Your task to perform on an android device: install app "PlayWell" Image 0: 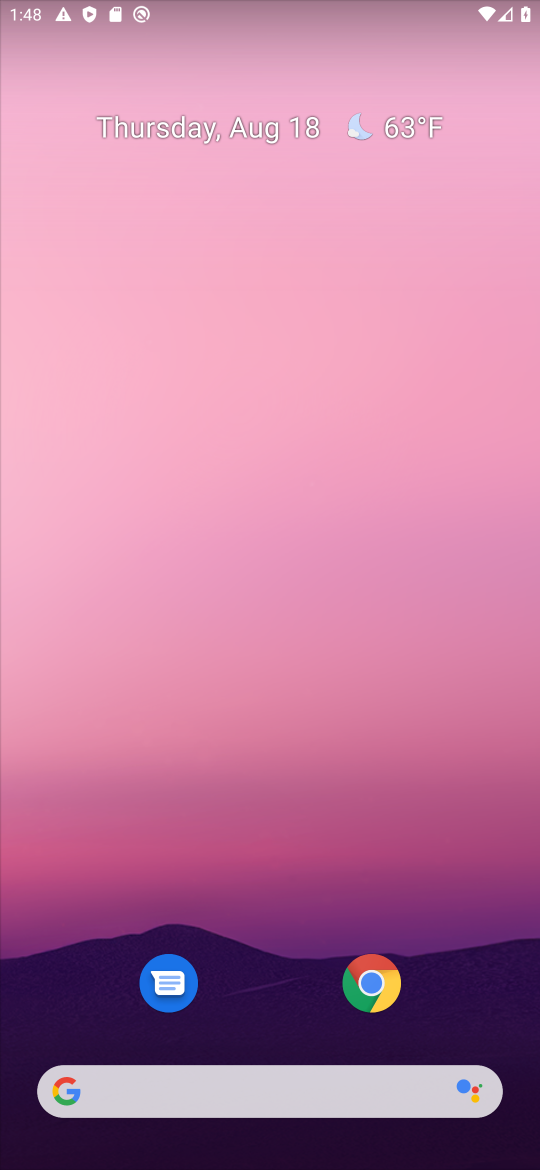
Step 0: drag from (427, 962) to (258, 354)
Your task to perform on an android device: install app "PlayWell" Image 1: 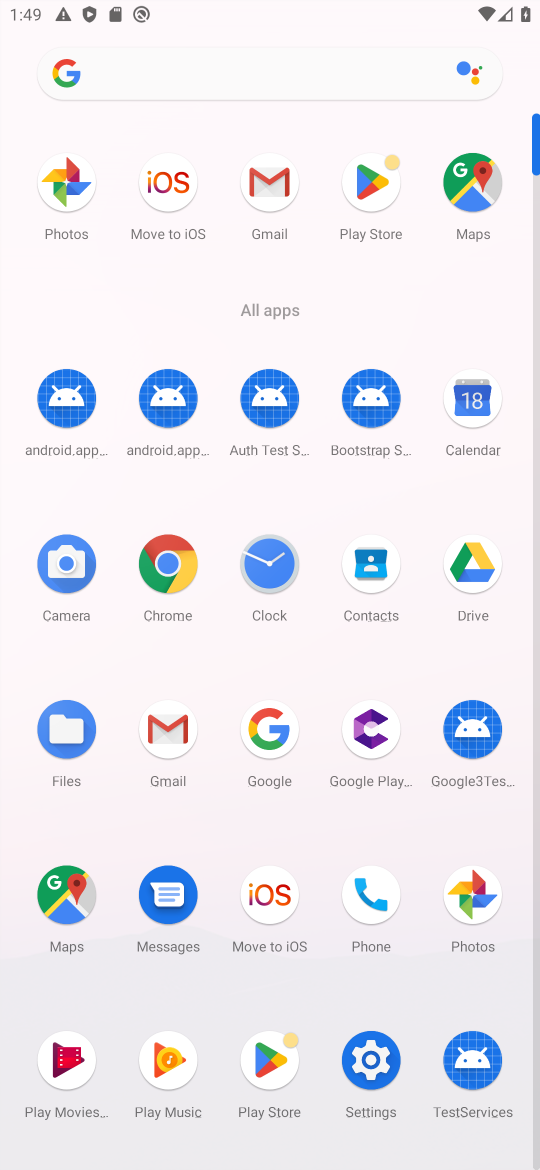
Step 1: click (267, 1069)
Your task to perform on an android device: install app "PlayWell" Image 2: 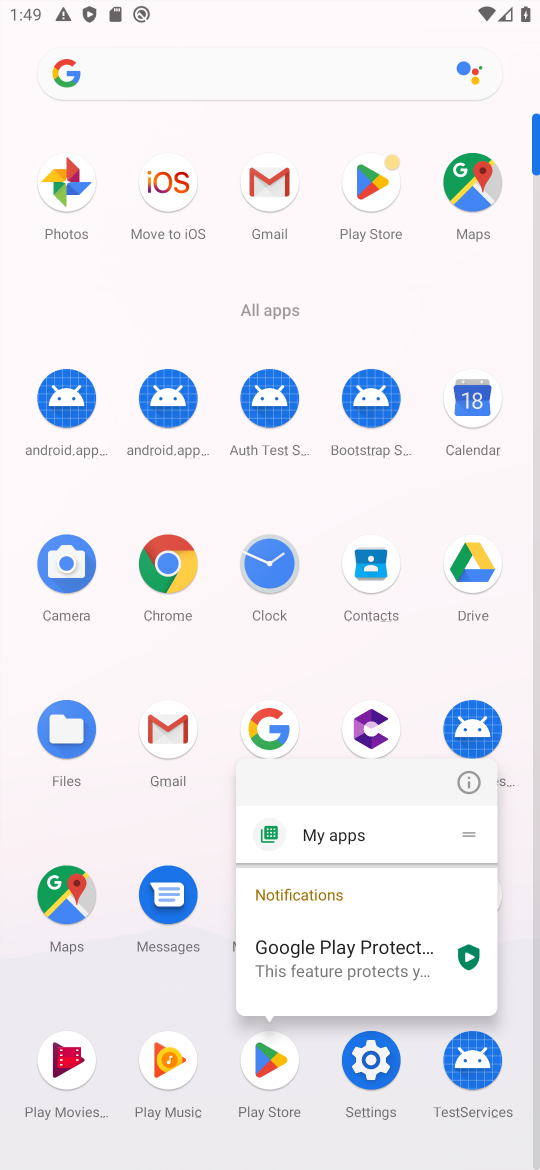
Step 2: click (272, 1071)
Your task to perform on an android device: install app "PlayWell" Image 3: 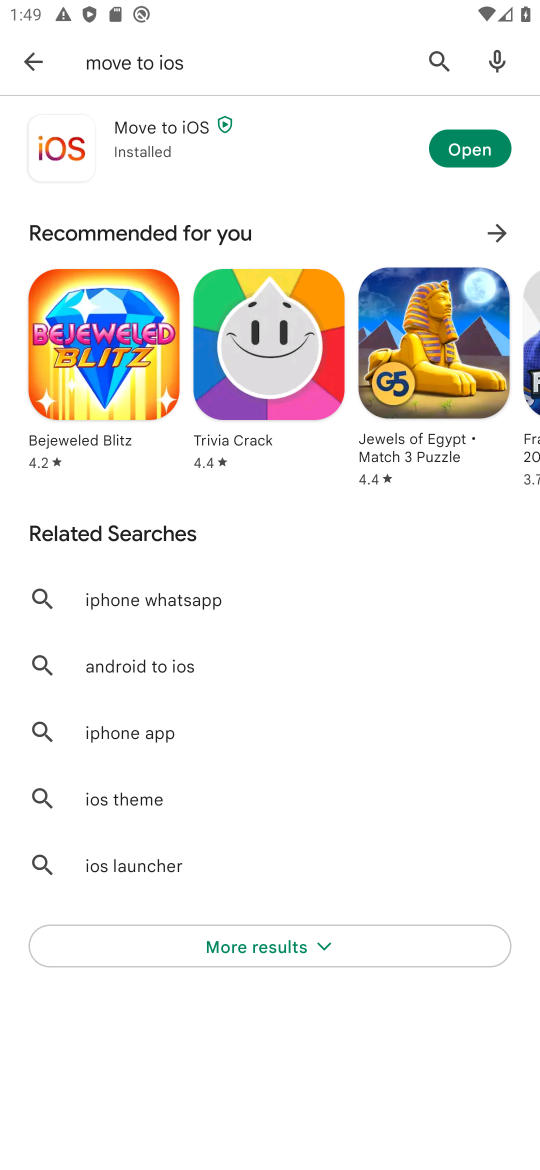
Step 3: click (439, 35)
Your task to perform on an android device: install app "PlayWell" Image 4: 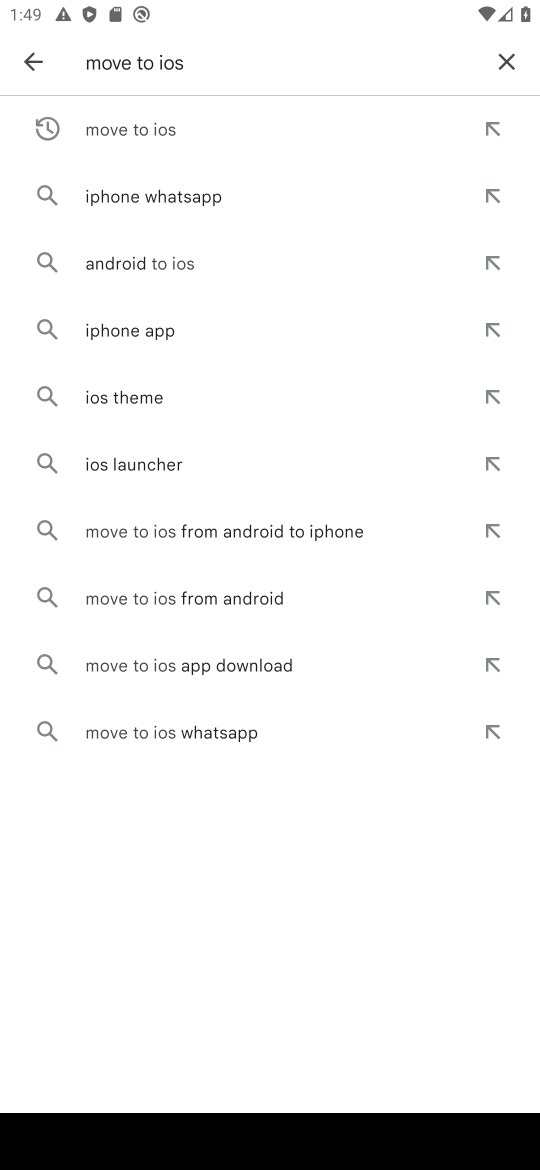
Step 4: click (503, 49)
Your task to perform on an android device: install app "PlayWell" Image 5: 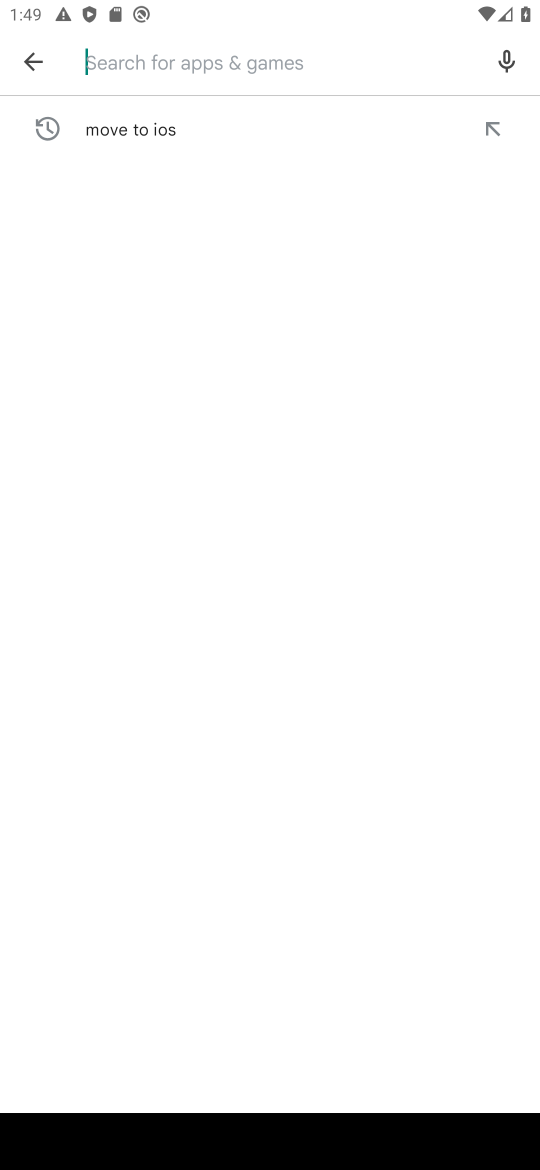
Step 5: type "playwell"
Your task to perform on an android device: install app "PlayWell" Image 6: 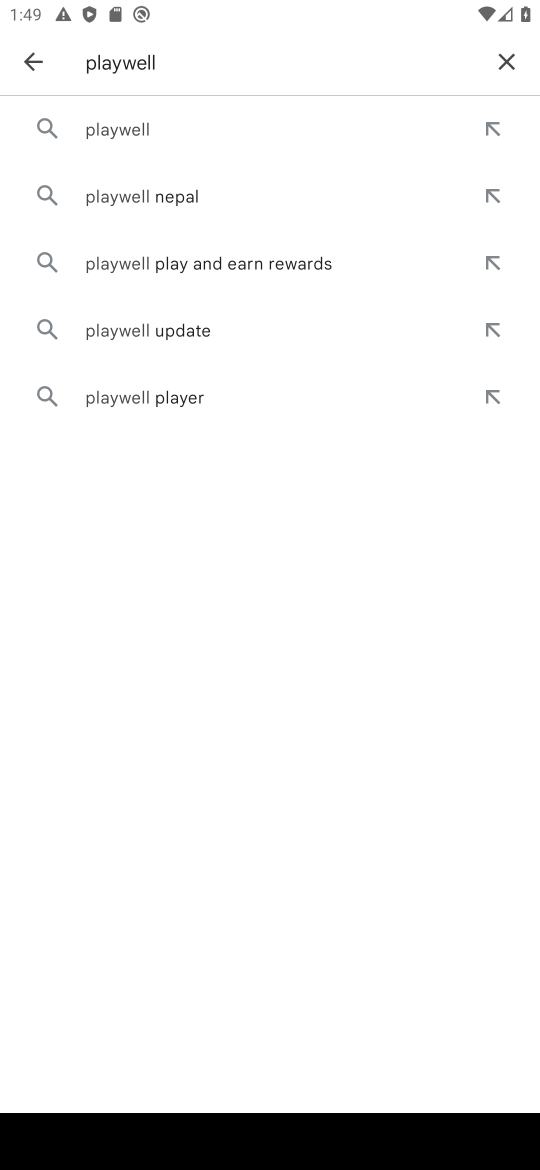
Step 6: click (190, 130)
Your task to perform on an android device: install app "PlayWell" Image 7: 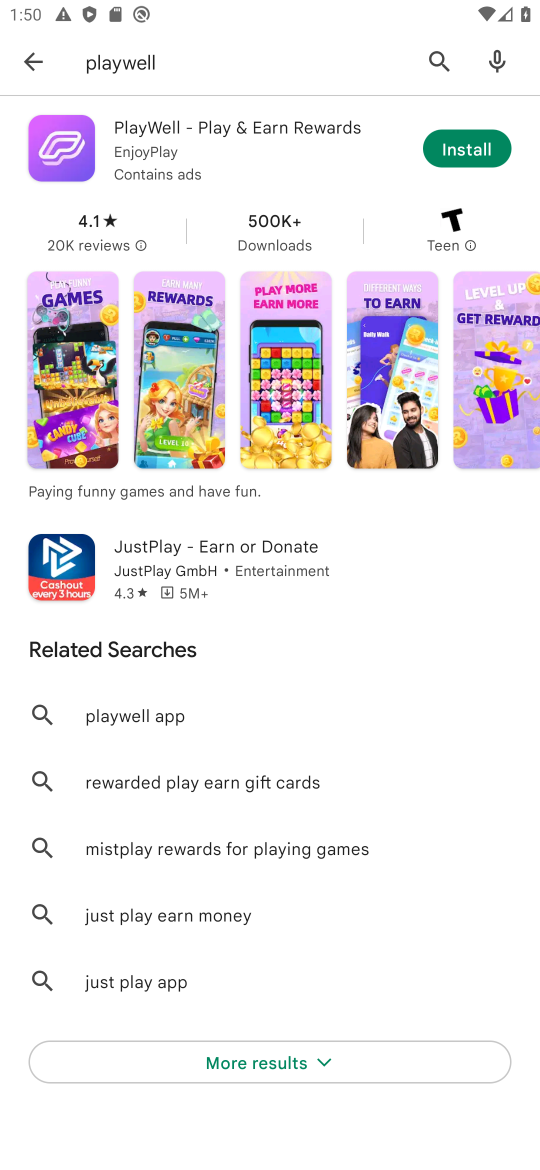
Step 7: click (447, 156)
Your task to perform on an android device: install app "PlayWell" Image 8: 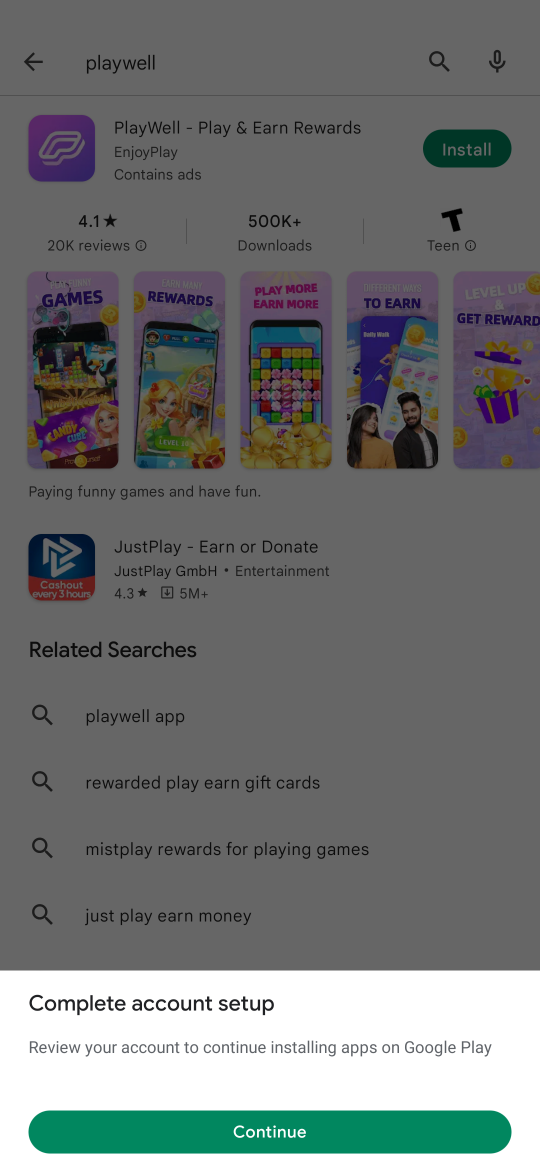
Step 8: click (355, 1138)
Your task to perform on an android device: install app "PlayWell" Image 9: 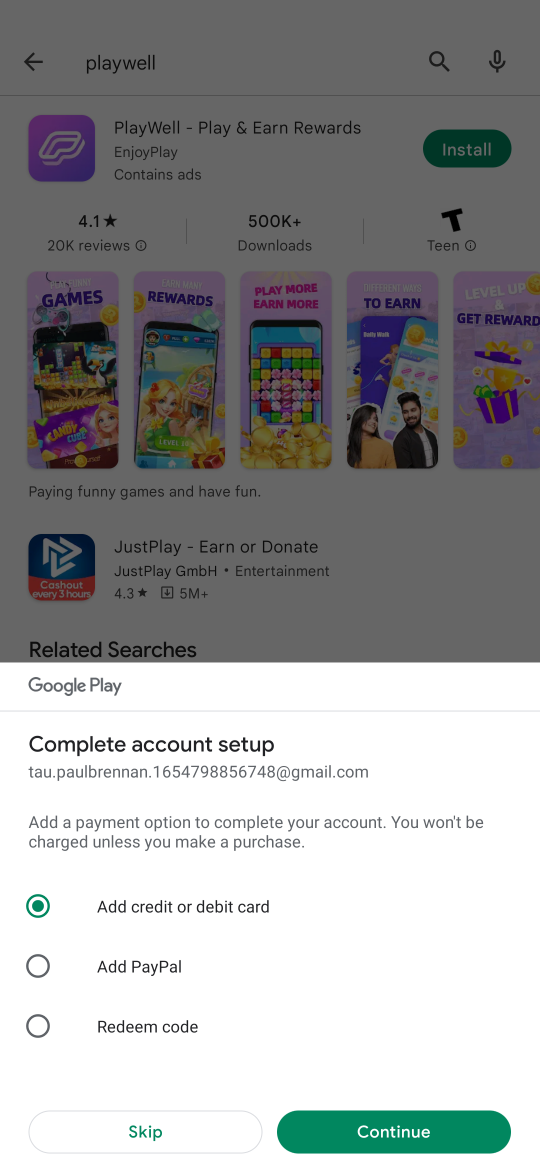
Step 9: click (146, 1129)
Your task to perform on an android device: install app "PlayWell" Image 10: 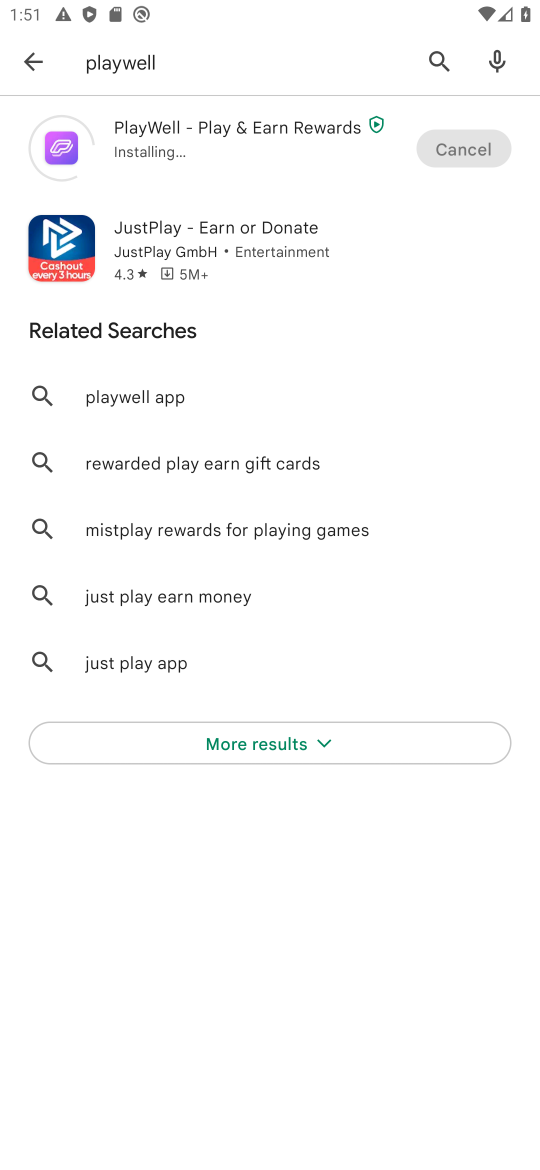
Step 10: click (325, 143)
Your task to perform on an android device: install app "PlayWell" Image 11: 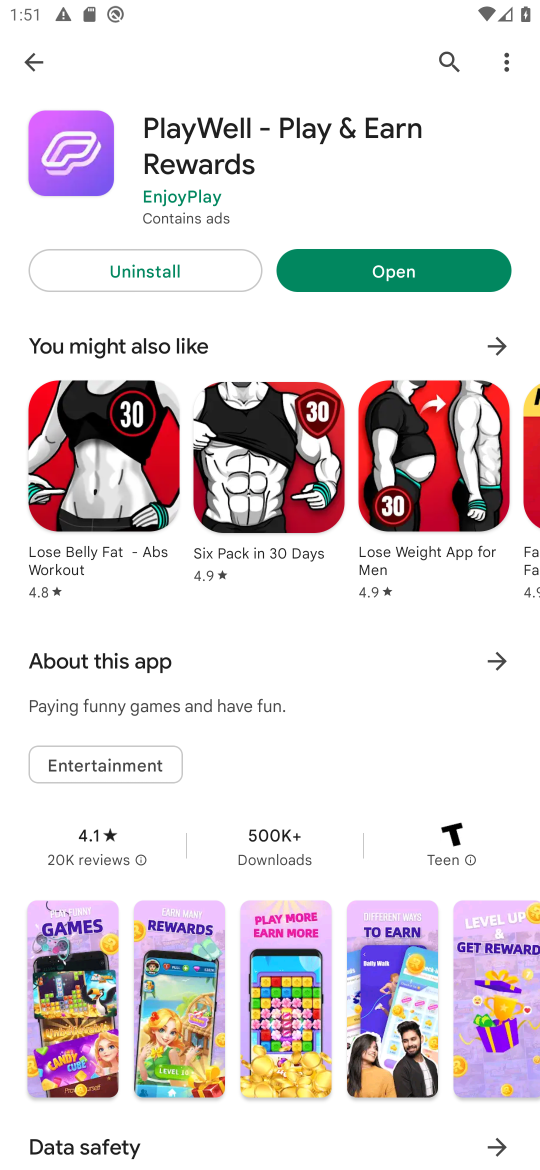
Step 11: task complete